Your task to perform on an android device: open app "Instagram" (install if not already installed), go to login, and select forgot password Image 0: 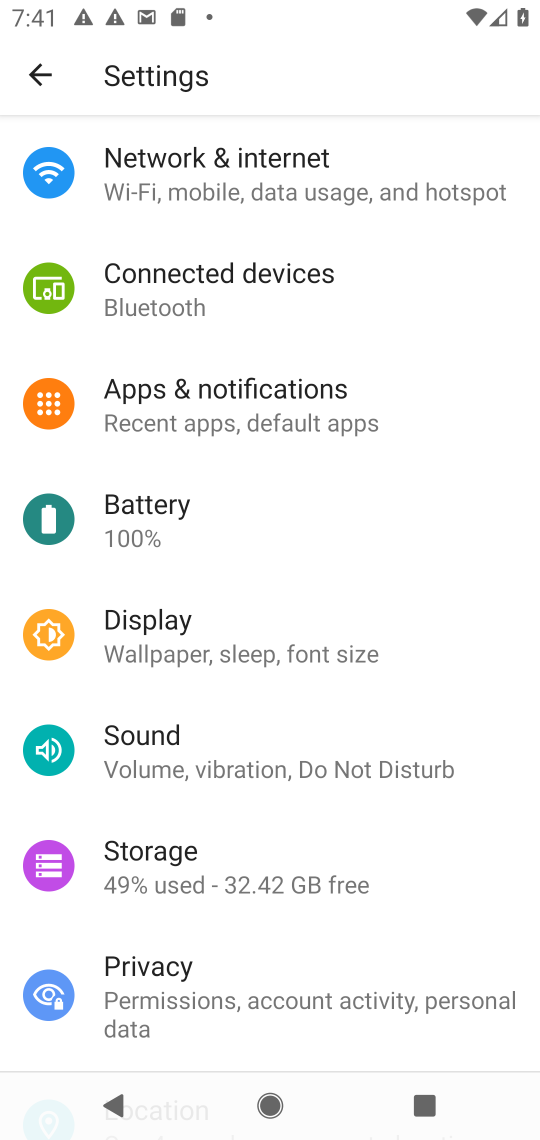
Step 0: press home button
Your task to perform on an android device: open app "Instagram" (install if not already installed), go to login, and select forgot password Image 1: 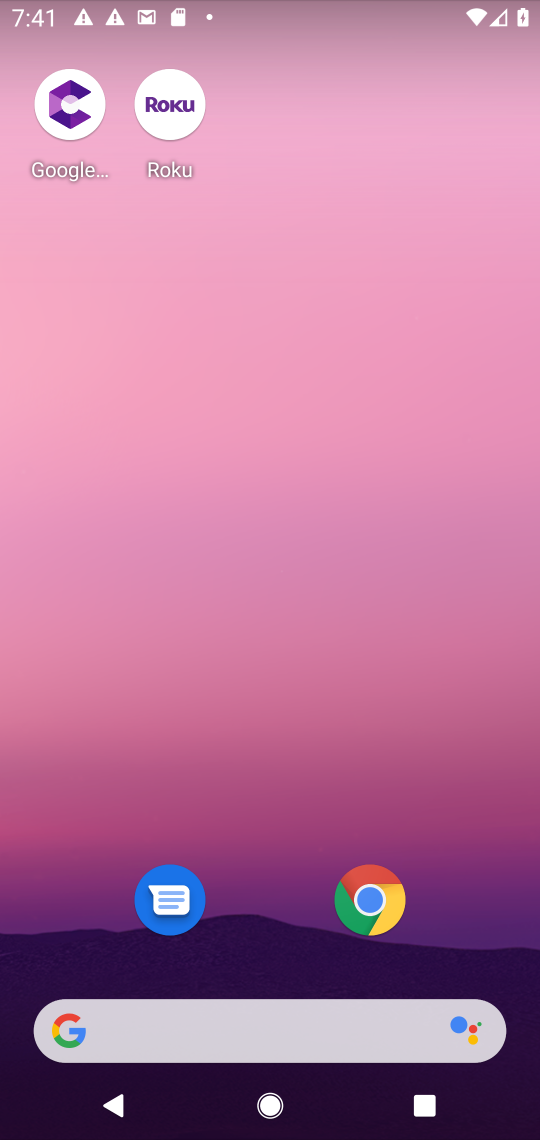
Step 1: drag from (297, 936) to (448, 84)
Your task to perform on an android device: open app "Instagram" (install if not already installed), go to login, and select forgot password Image 2: 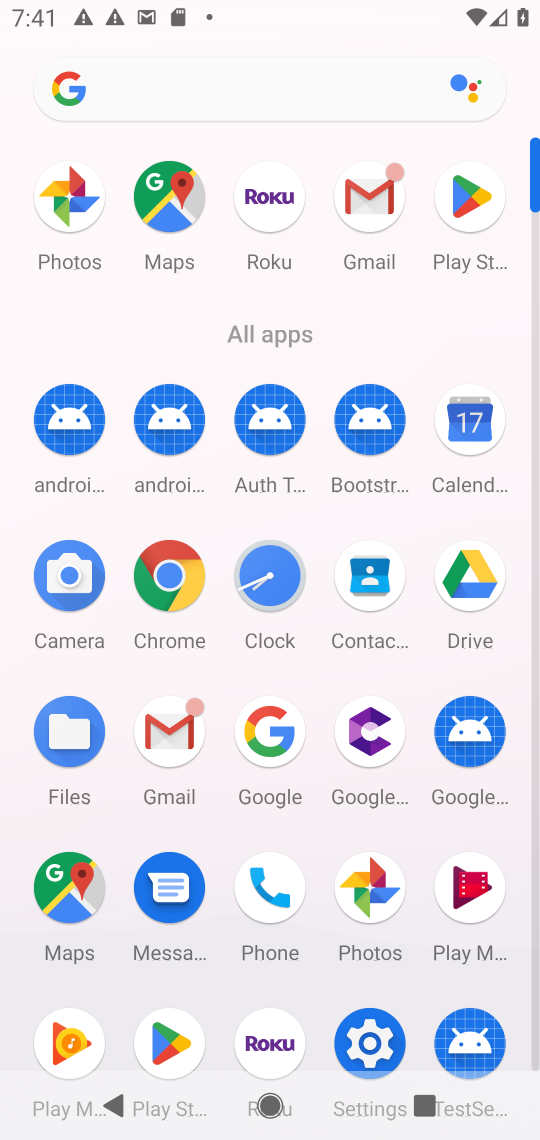
Step 2: click (478, 210)
Your task to perform on an android device: open app "Instagram" (install if not already installed), go to login, and select forgot password Image 3: 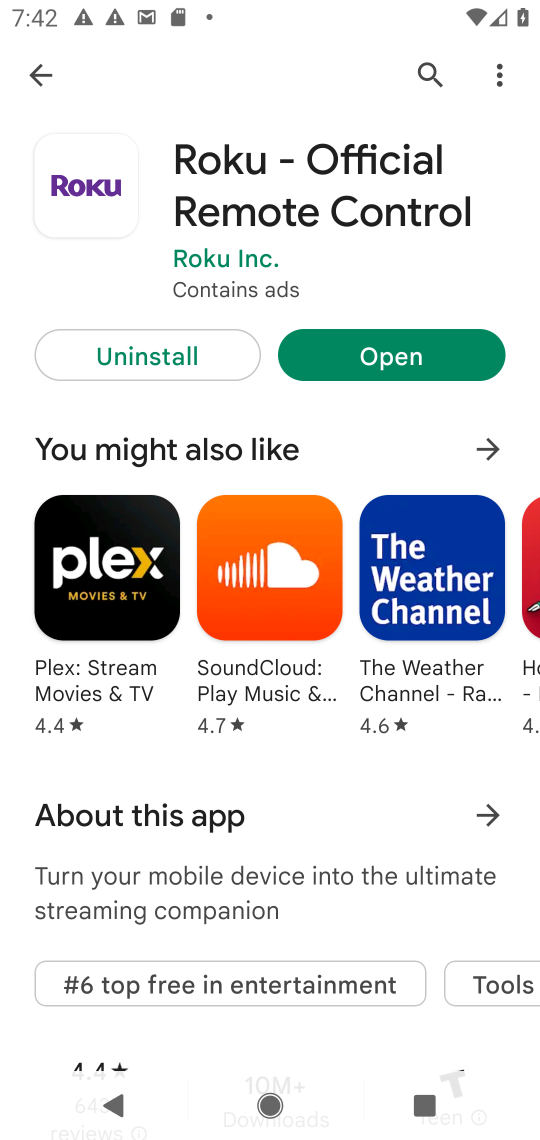
Step 3: click (43, 78)
Your task to perform on an android device: open app "Instagram" (install if not already installed), go to login, and select forgot password Image 4: 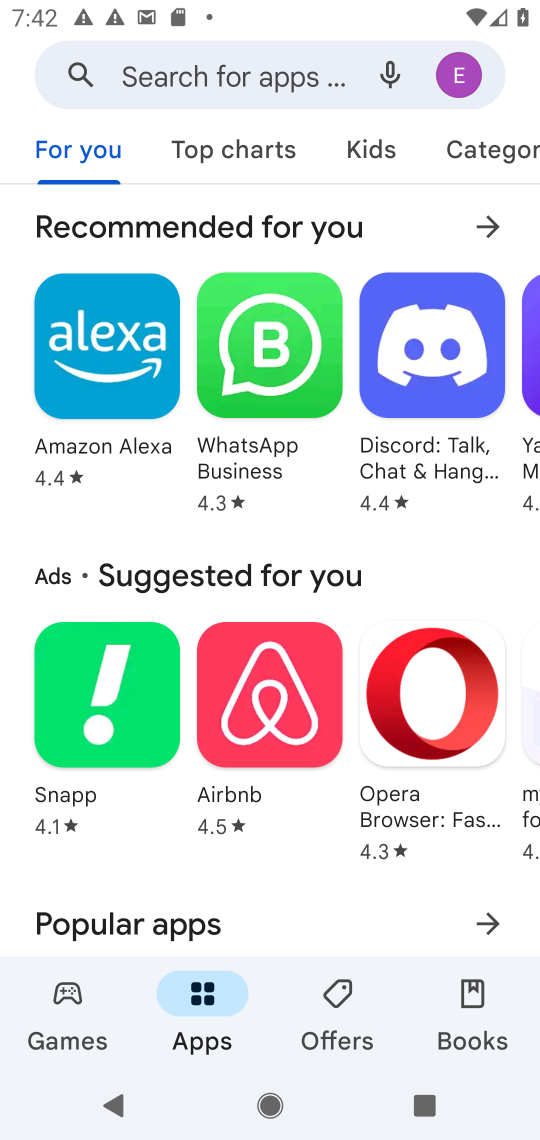
Step 4: click (208, 84)
Your task to perform on an android device: open app "Instagram" (install if not already installed), go to login, and select forgot password Image 5: 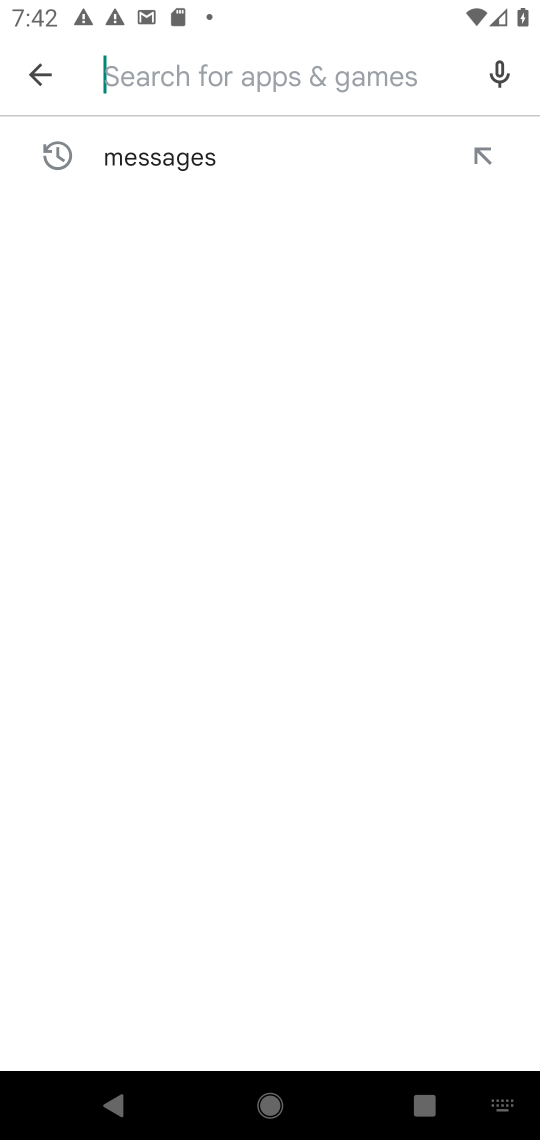
Step 5: type "Instagram"
Your task to perform on an android device: open app "Instagram" (install if not already installed), go to login, and select forgot password Image 6: 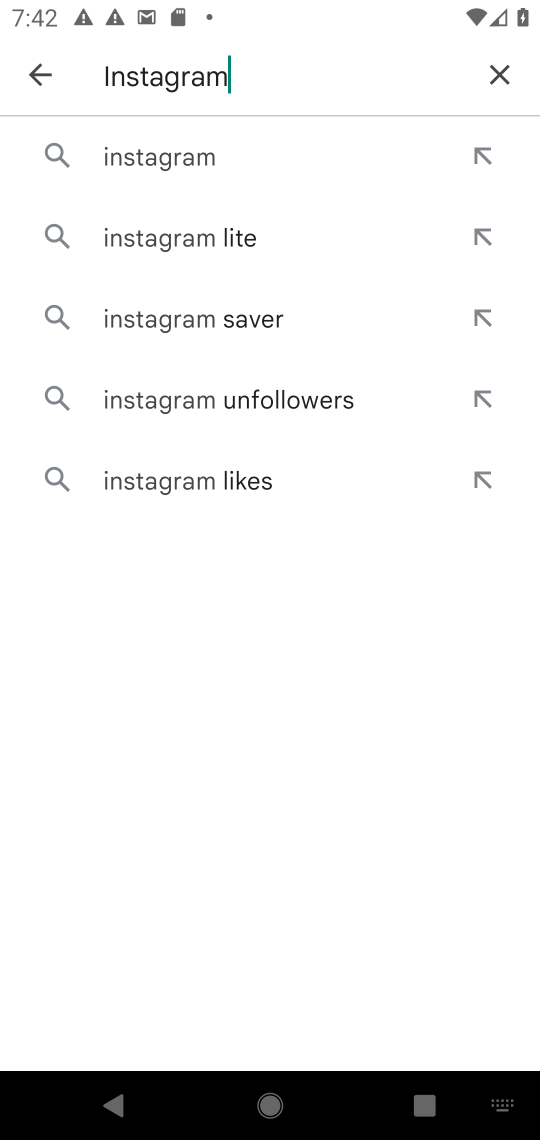
Step 6: click (191, 166)
Your task to perform on an android device: open app "Instagram" (install if not already installed), go to login, and select forgot password Image 7: 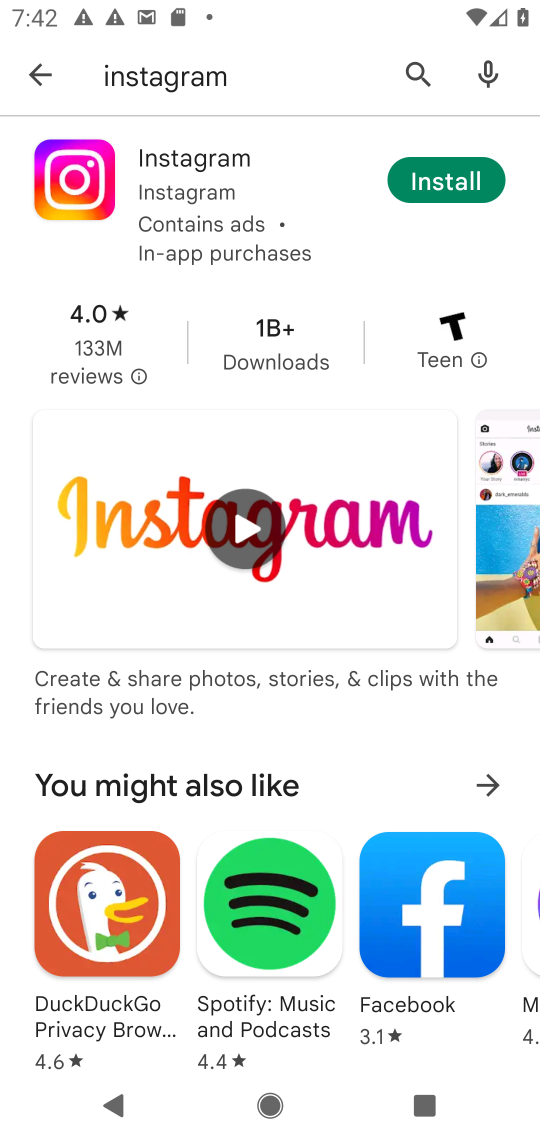
Step 7: click (449, 197)
Your task to perform on an android device: open app "Instagram" (install if not already installed), go to login, and select forgot password Image 8: 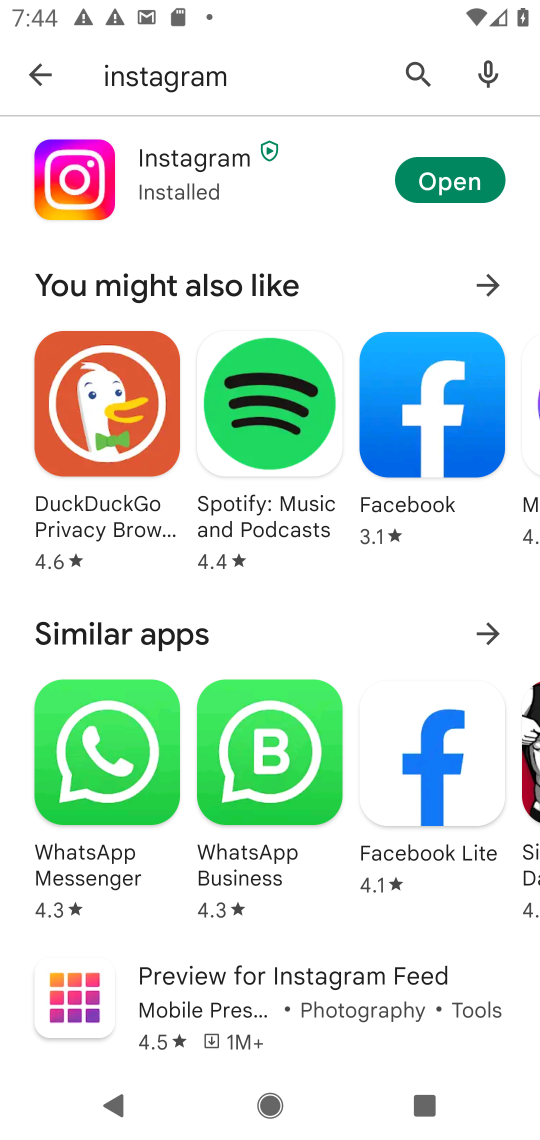
Step 8: click (477, 183)
Your task to perform on an android device: open app "Instagram" (install if not already installed), go to login, and select forgot password Image 9: 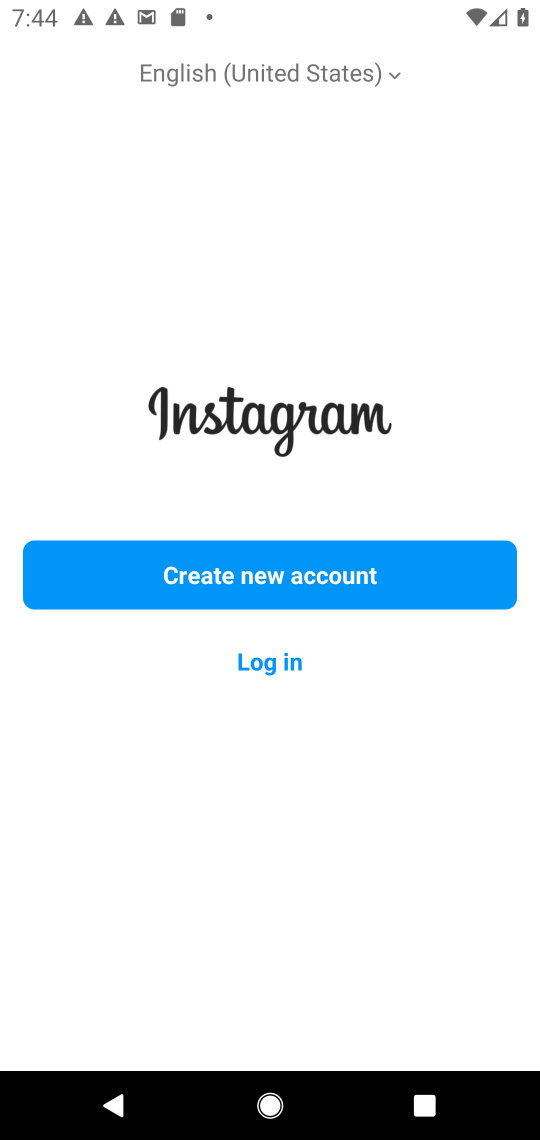
Step 9: click (257, 657)
Your task to perform on an android device: open app "Instagram" (install if not already installed), go to login, and select forgot password Image 10: 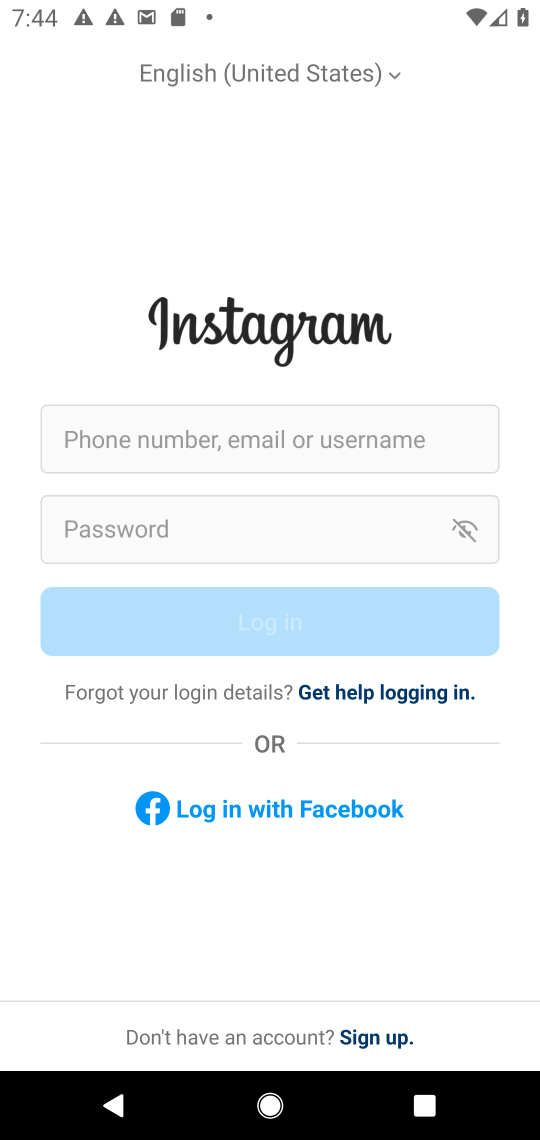
Step 10: click (218, 691)
Your task to perform on an android device: open app "Instagram" (install if not already installed), go to login, and select forgot password Image 11: 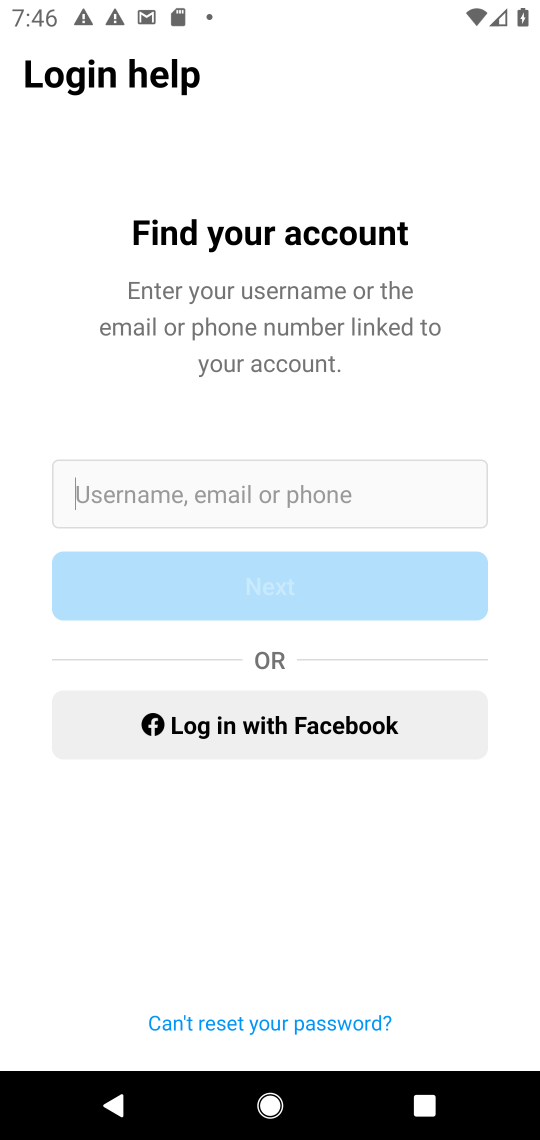
Step 11: task complete